Your task to perform on an android device: What's the weather going to be tomorrow? Image 0: 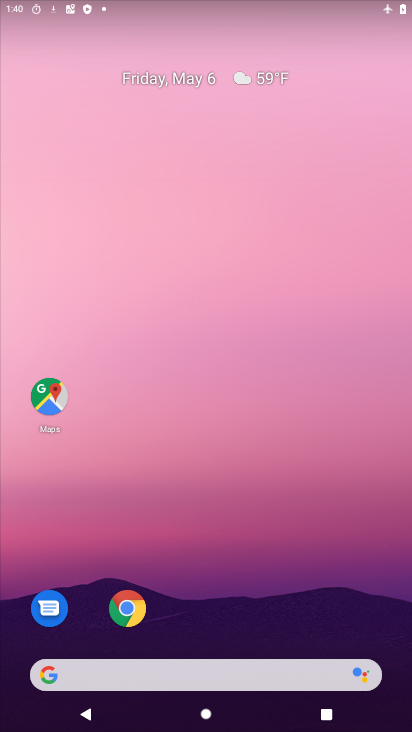
Step 0: click (125, 603)
Your task to perform on an android device: What's the weather going to be tomorrow? Image 1: 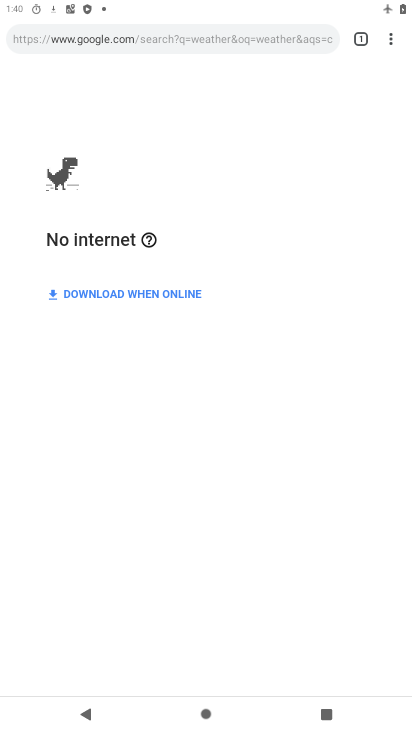
Step 1: click (105, 38)
Your task to perform on an android device: What's the weather going to be tomorrow? Image 2: 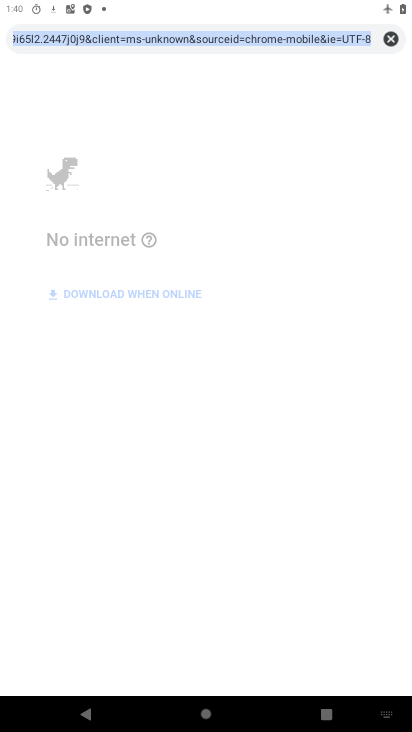
Step 2: type "tomorrow weather?"
Your task to perform on an android device: What's the weather going to be tomorrow? Image 3: 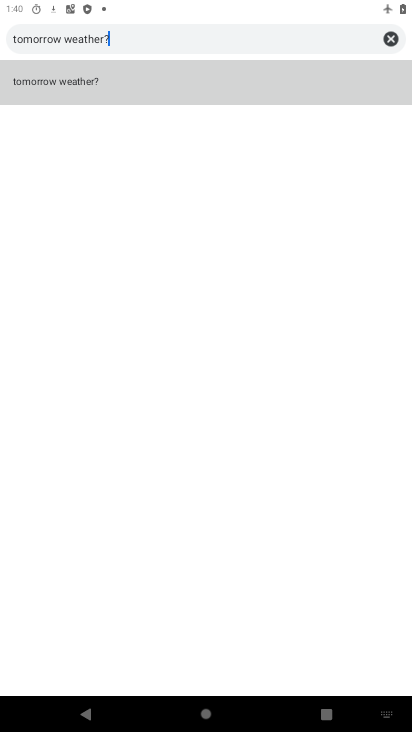
Step 3: click (125, 88)
Your task to perform on an android device: What's the weather going to be tomorrow? Image 4: 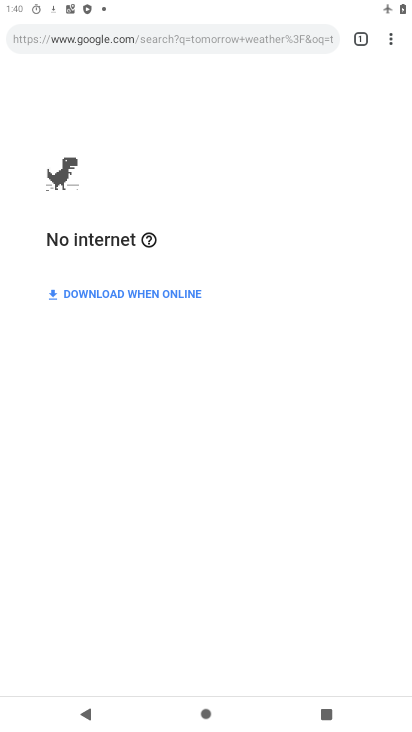
Step 4: task complete